Your task to perform on an android device: Open sound settings Image 0: 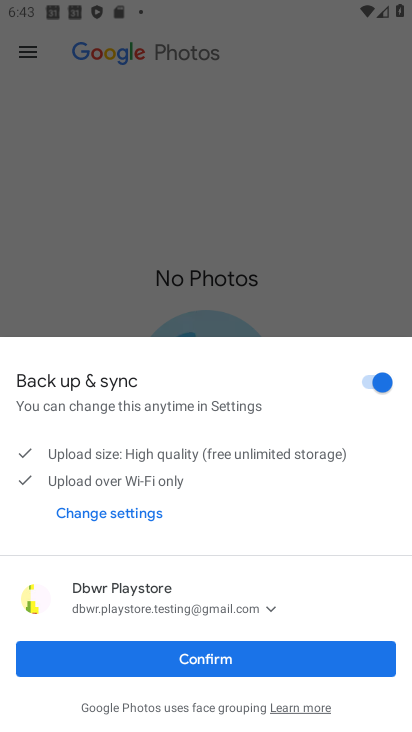
Step 0: press home button
Your task to perform on an android device: Open sound settings Image 1: 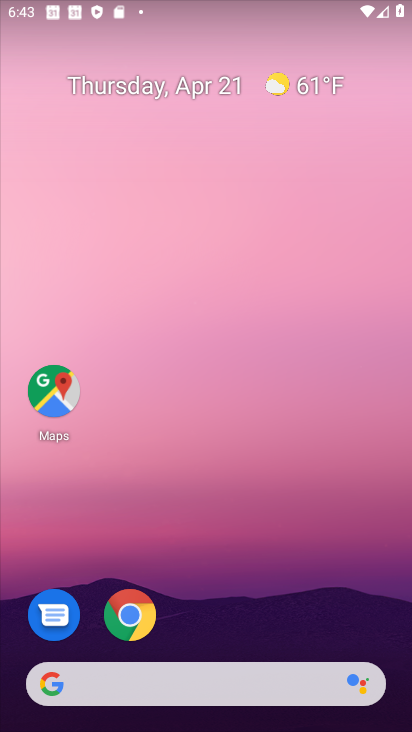
Step 1: drag from (208, 628) to (287, 143)
Your task to perform on an android device: Open sound settings Image 2: 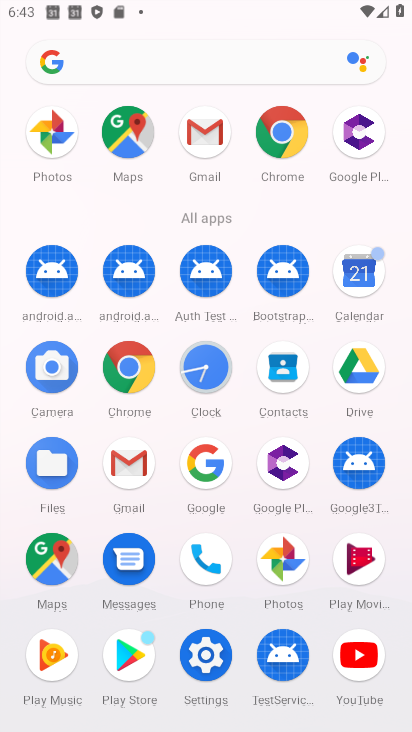
Step 2: click (198, 669)
Your task to perform on an android device: Open sound settings Image 3: 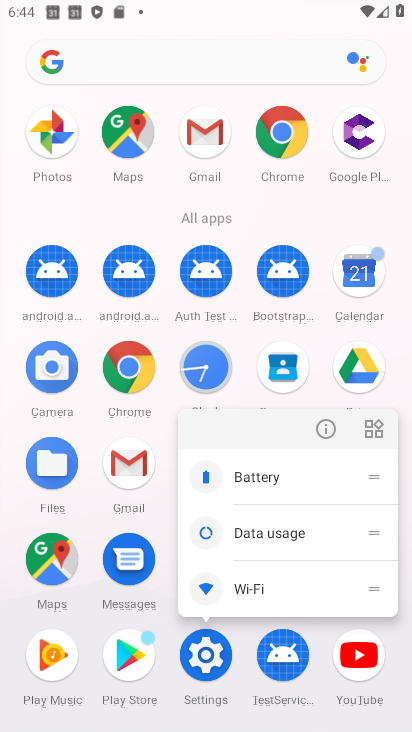
Step 3: click (328, 425)
Your task to perform on an android device: Open sound settings Image 4: 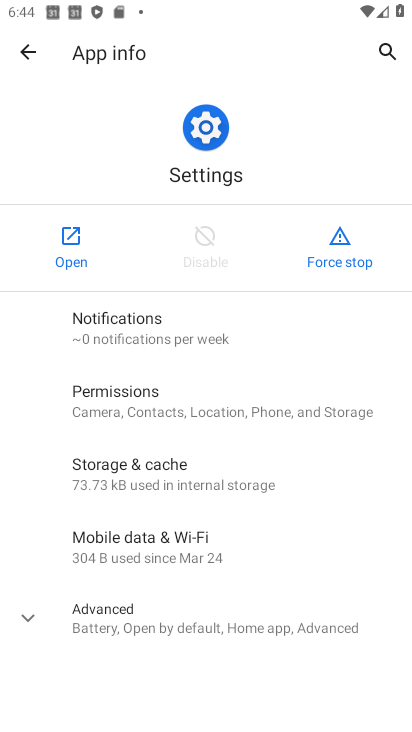
Step 4: click (71, 213)
Your task to perform on an android device: Open sound settings Image 5: 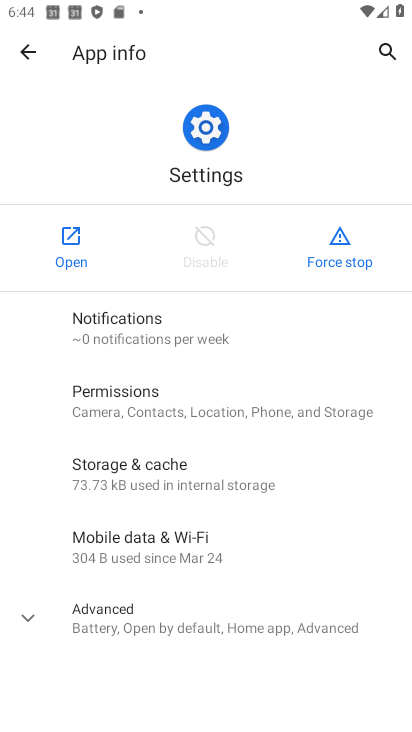
Step 5: click (65, 240)
Your task to perform on an android device: Open sound settings Image 6: 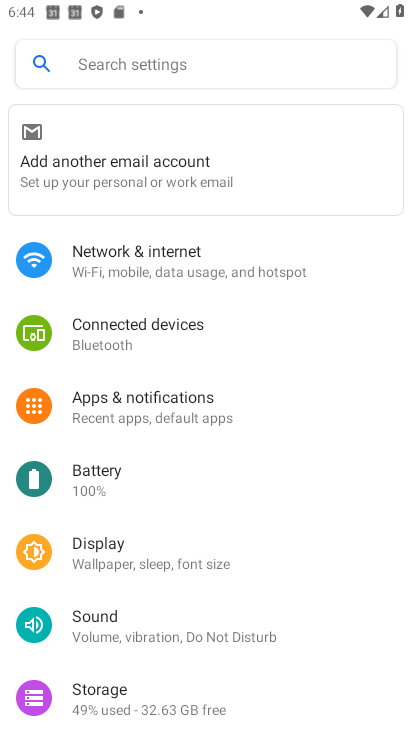
Step 6: click (120, 631)
Your task to perform on an android device: Open sound settings Image 7: 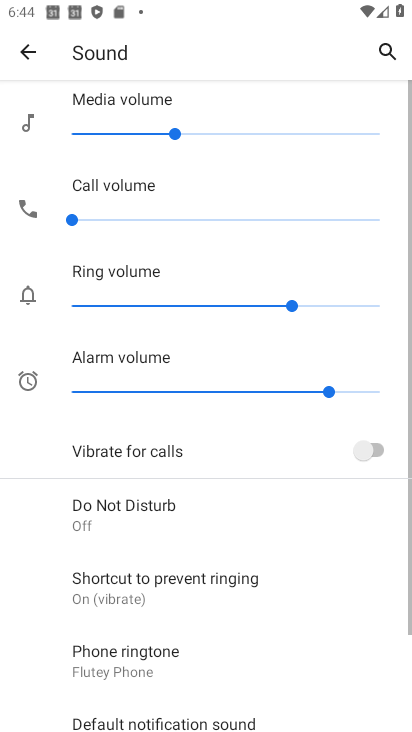
Step 7: task complete